Your task to perform on an android device: Open settings on Google Maps Image 0: 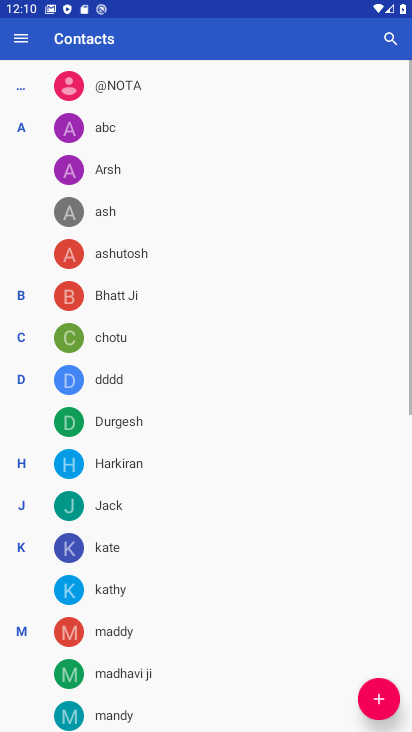
Step 0: press home button
Your task to perform on an android device: Open settings on Google Maps Image 1: 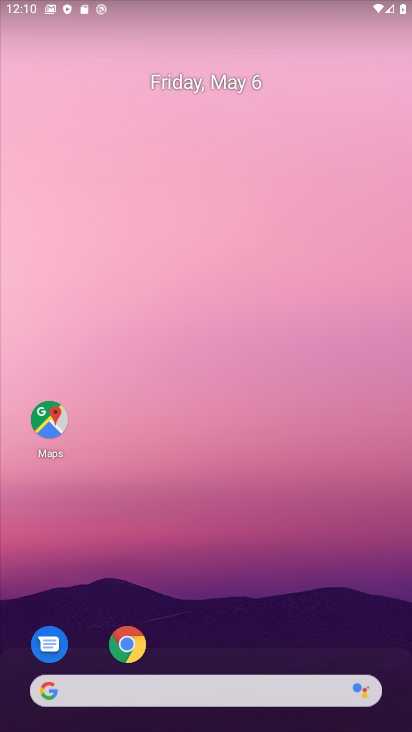
Step 1: drag from (268, 672) to (297, 141)
Your task to perform on an android device: Open settings on Google Maps Image 2: 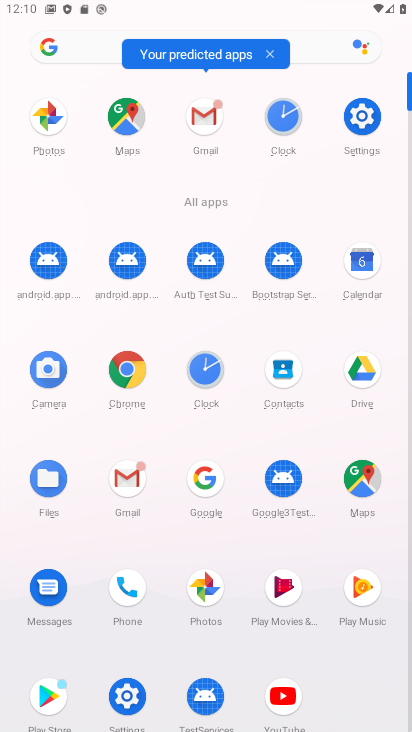
Step 2: click (356, 482)
Your task to perform on an android device: Open settings on Google Maps Image 3: 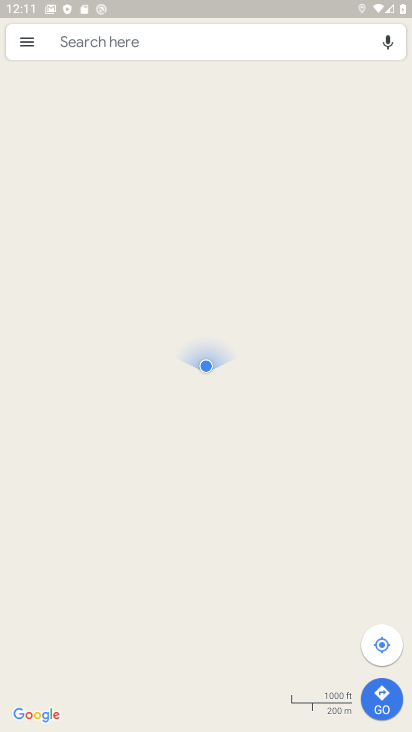
Step 3: click (28, 40)
Your task to perform on an android device: Open settings on Google Maps Image 4: 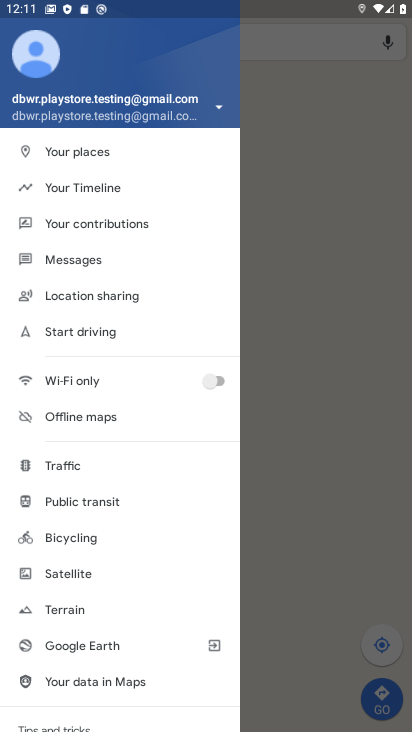
Step 4: click (334, 359)
Your task to perform on an android device: Open settings on Google Maps Image 5: 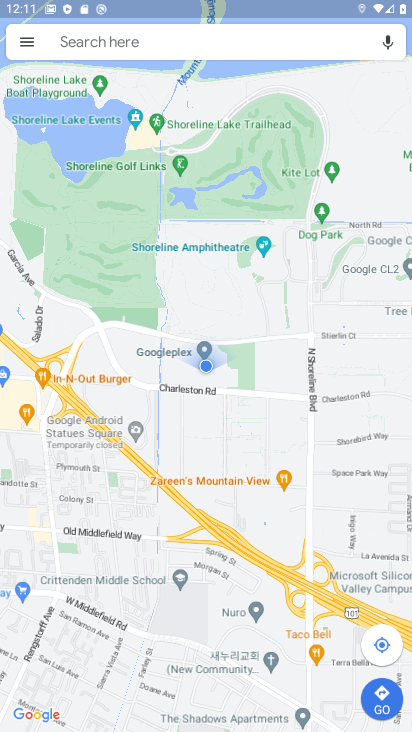
Step 5: click (30, 46)
Your task to perform on an android device: Open settings on Google Maps Image 6: 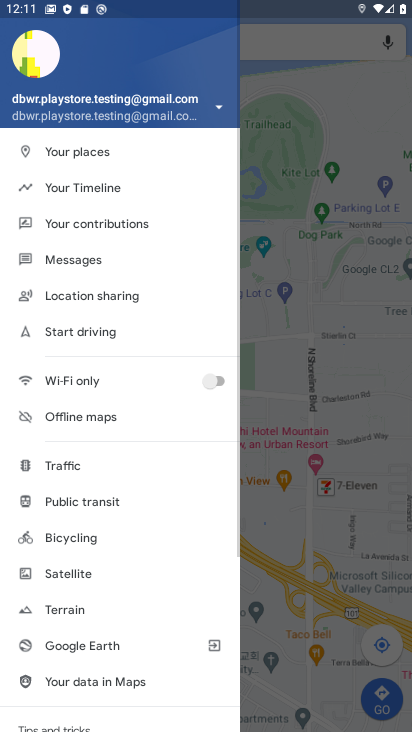
Step 6: click (85, 191)
Your task to perform on an android device: Open settings on Google Maps Image 7: 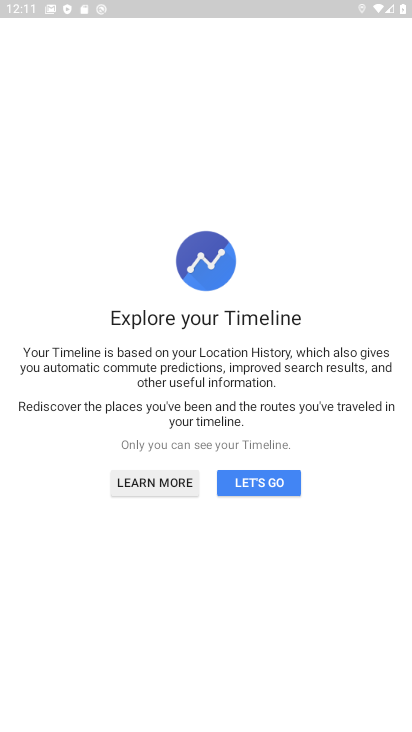
Step 7: click (245, 485)
Your task to perform on an android device: Open settings on Google Maps Image 8: 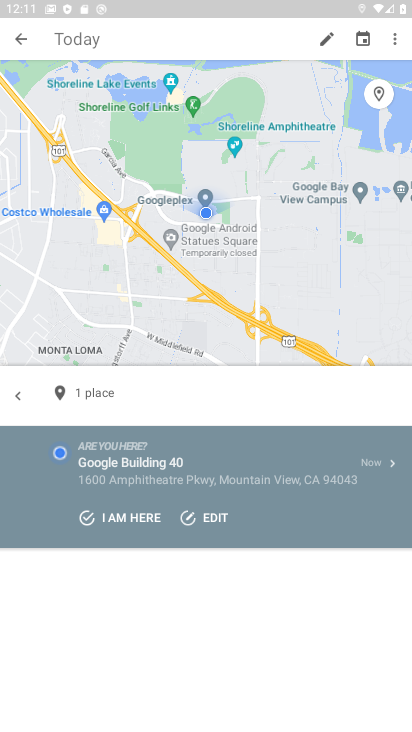
Step 8: click (390, 37)
Your task to perform on an android device: Open settings on Google Maps Image 9: 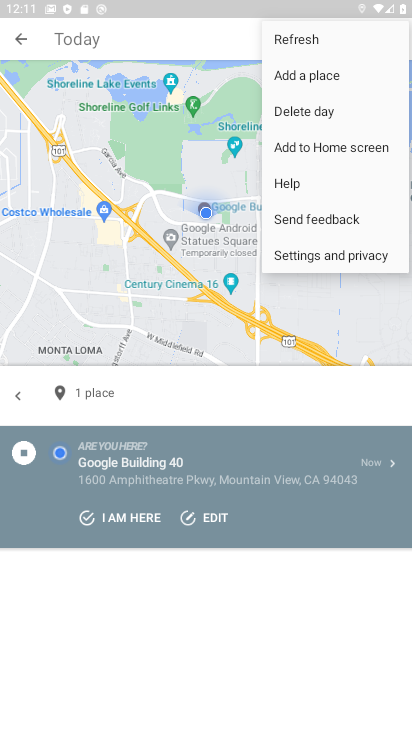
Step 9: click (324, 253)
Your task to perform on an android device: Open settings on Google Maps Image 10: 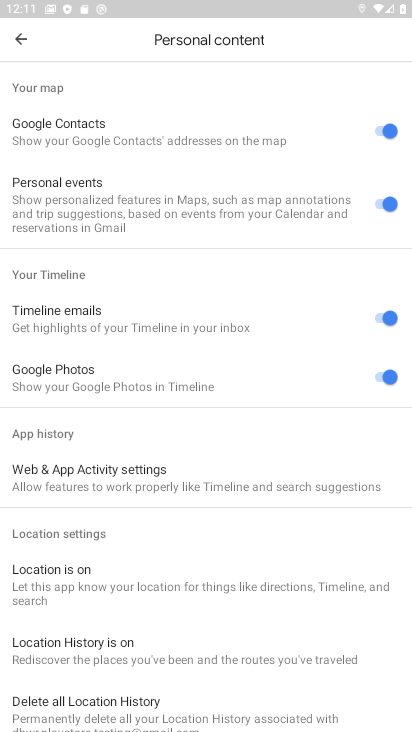
Step 10: task complete